Your task to perform on an android device: See recent photos Image 0: 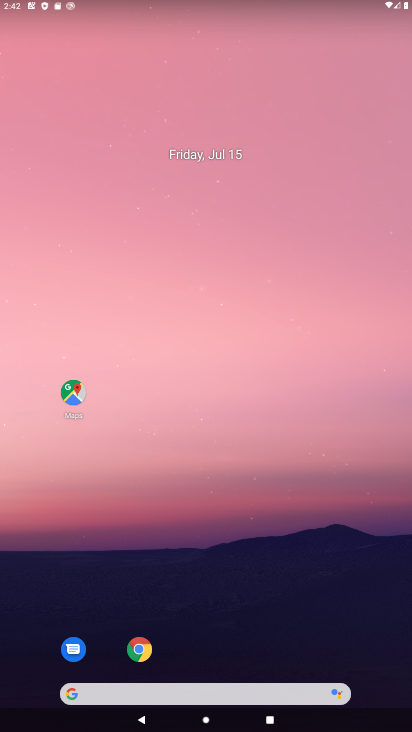
Step 0: drag from (237, 568) to (246, 98)
Your task to perform on an android device: See recent photos Image 1: 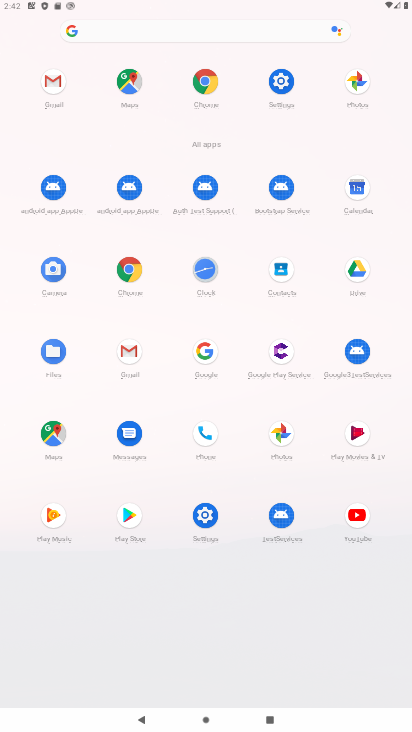
Step 1: click (287, 437)
Your task to perform on an android device: See recent photos Image 2: 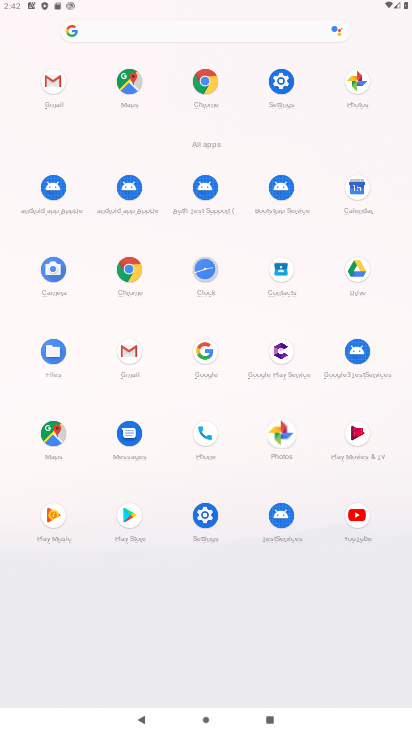
Step 2: click (287, 437)
Your task to perform on an android device: See recent photos Image 3: 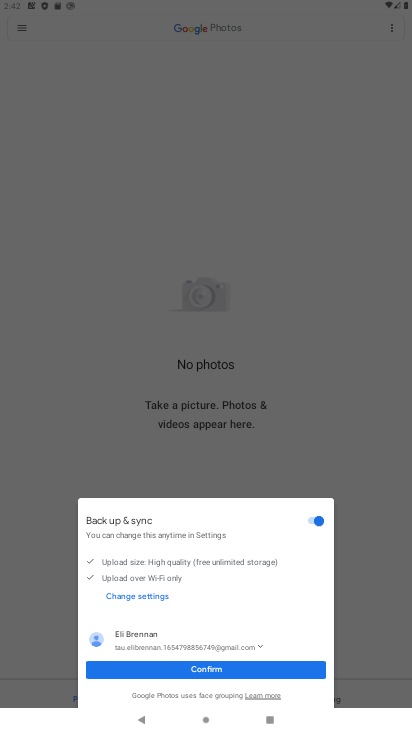
Step 3: click (246, 2)
Your task to perform on an android device: See recent photos Image 4: 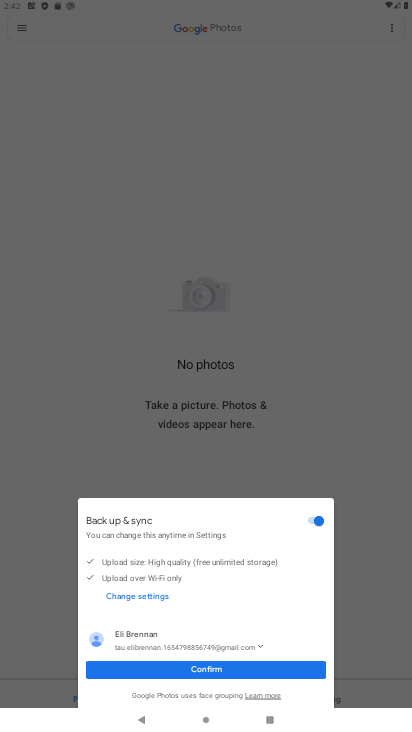
Step 4: drag from (265, 401) to (265, 188)
Your task to perform on an android device: See recent photos Image 5: 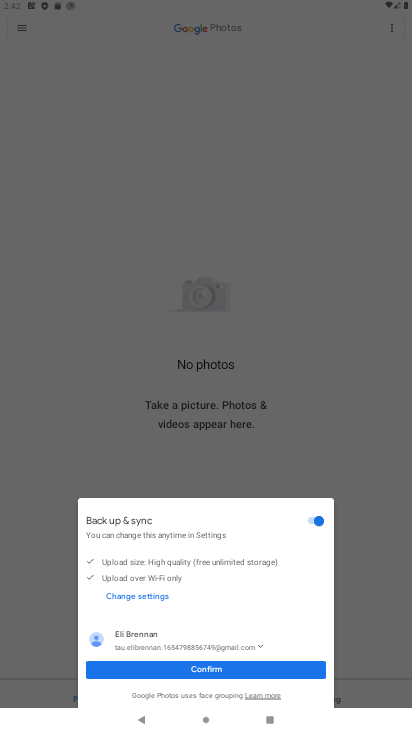
Step 5: click (230, 672)
Your task to perform on an android device: See recent photos Image 6: 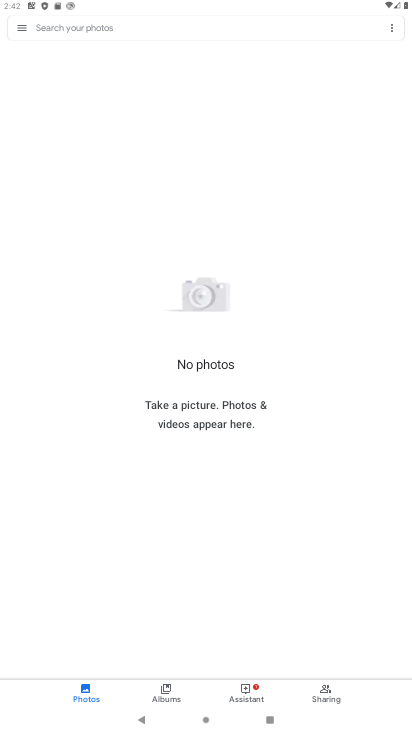
Step 6: task complete